Your task to perform on an android device: turn off javascript in the chrome app Image 0: 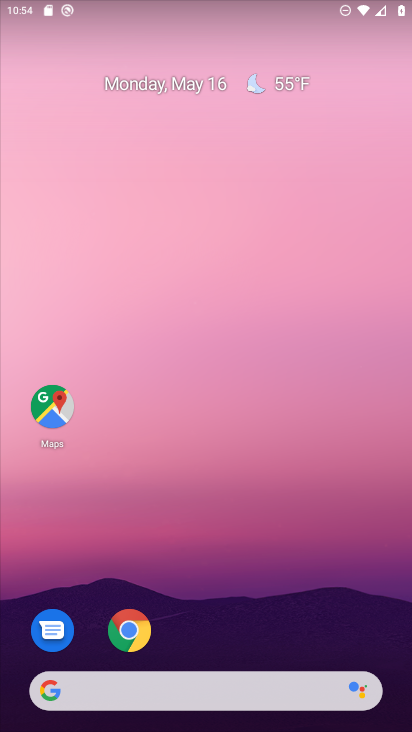
Step 0: click (130, 631)
Your task to perform on an android device: turn off javascript in the chrome app Image 1: 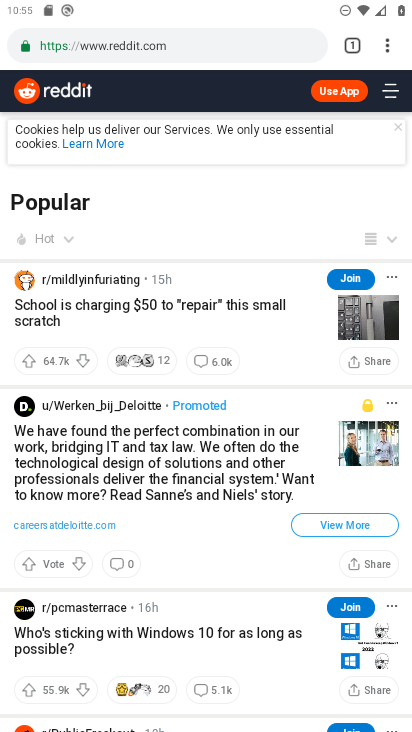
Step 1: click (389, 37)
Your task to perform on an android device: turn off javascript in the chrome app Image 2: 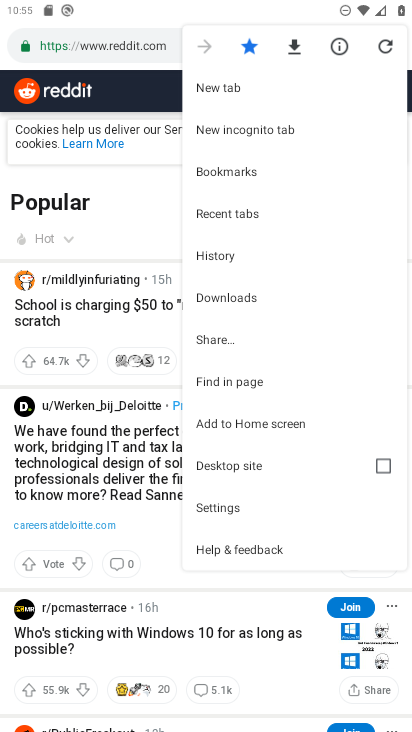
Step 2: click (223, 505)
Your task to perform on an android device: turn off javascript in the chrome app Image 3: 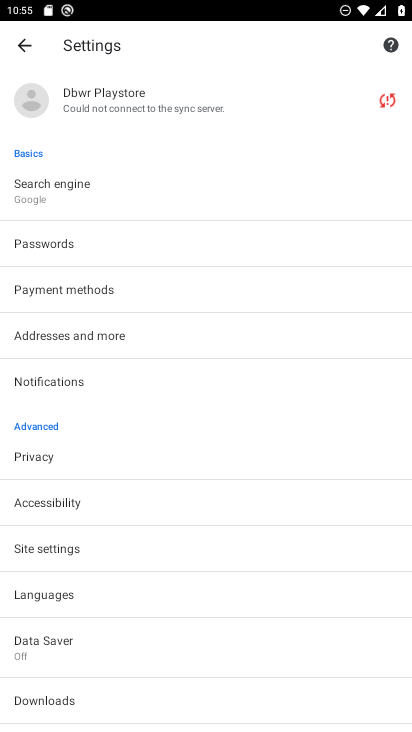
Step 3: click (80, 557)
Your task to perform on an android device: turn off javascript in the chrome app Image 4: 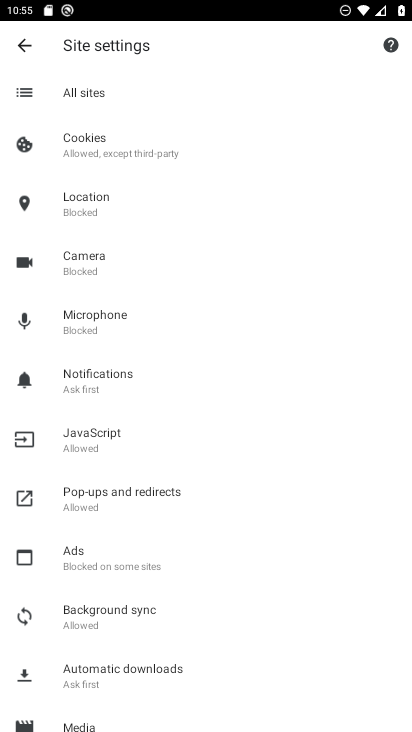
Step 4: click (128, 439)
Your task to perform on an android device: turn off javascript in the chrome app Image 5: 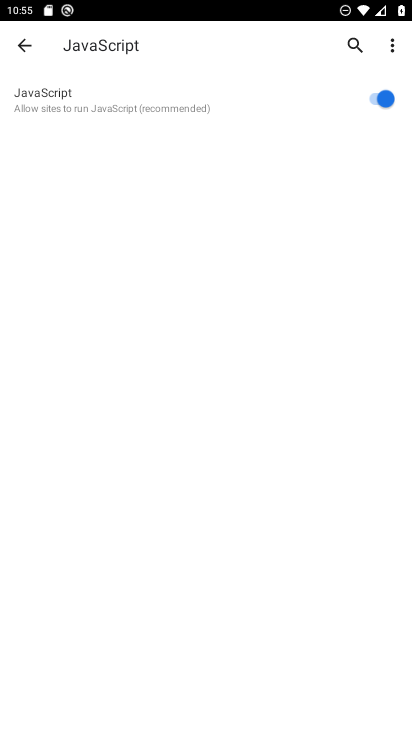
Step 5: click (365, 91)
Your task to perform on an android device: turn off javascript in the chrome app Image 6: 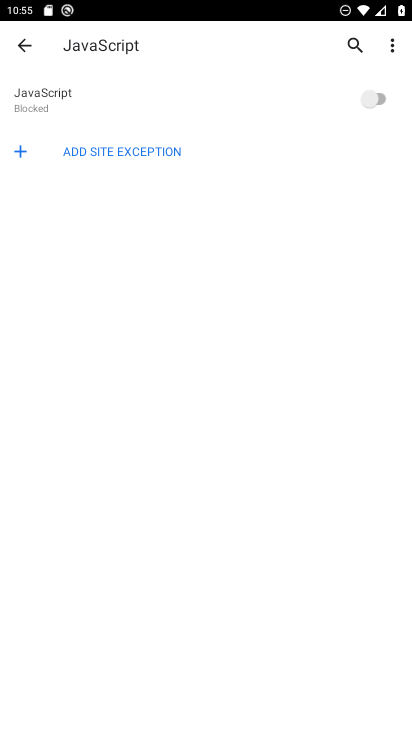
Step 6: task complete